Your task to perform on an android device: Go to accessibility settings Image 0: 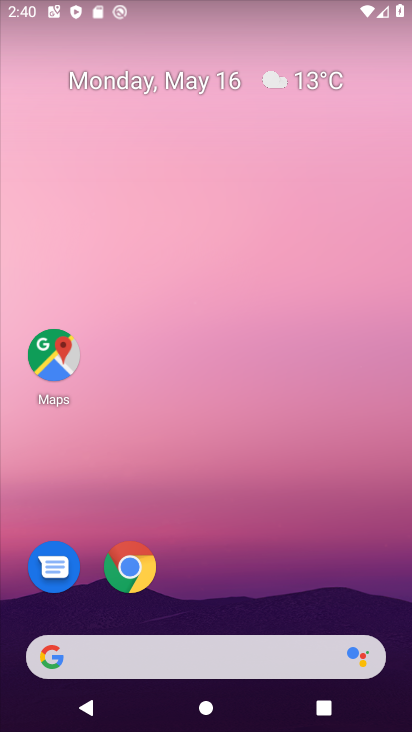
Step 0: drag from (257, 528) to (210, 105)
Your task to perform on an android device: Go to accessibility settings Image 1: 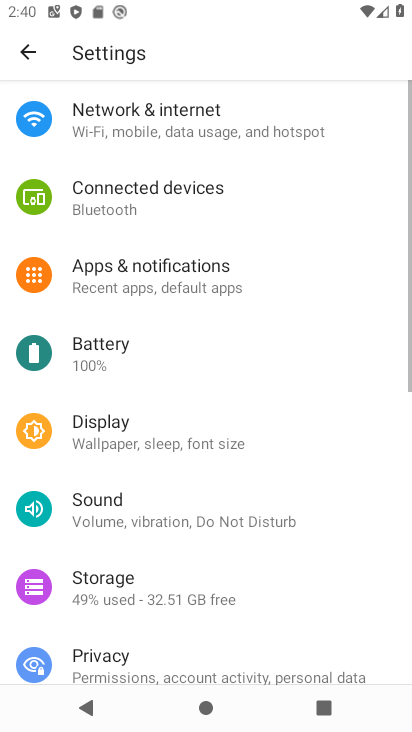
Step 1: drag from (204, 633) to (266, 203)
Your task to perform on an android device: Go to accessibility settings Image 2: 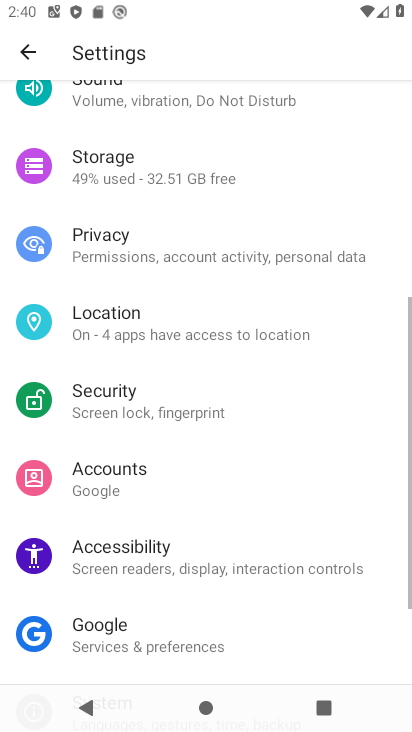
Step 2: click (188, 550)
Your task to perform on an android device: Go to accessibility settings Image 3: 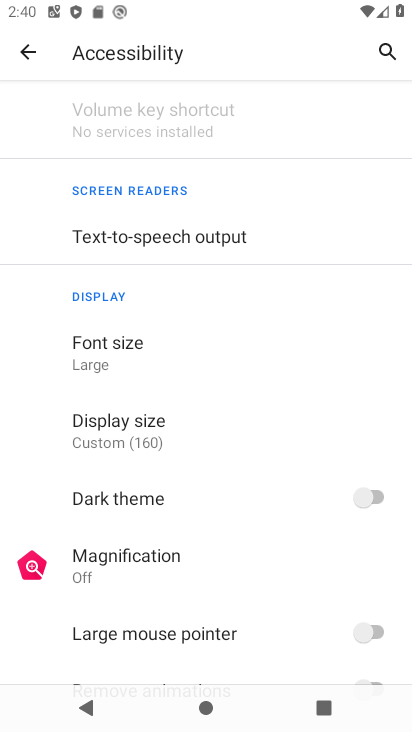
Step 3: task complete